Your task to perform on an android device: When is my next meeting? Image 0: 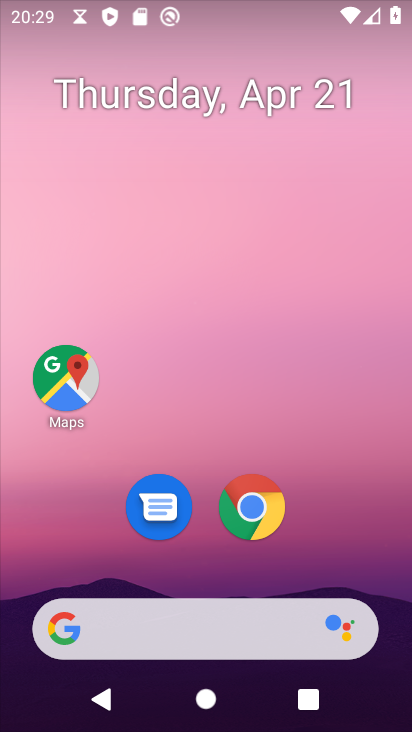
Step 0: drag from (181, 501) to (294, 32)
Your task to perform on an android device: When is my next meeting? Image 1: 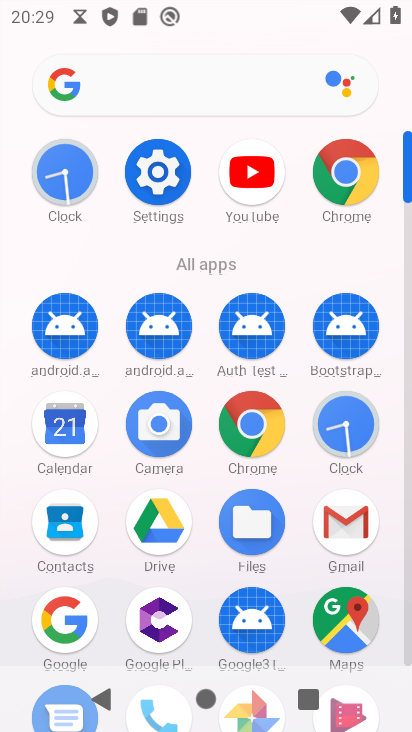
Step 1: click (67, 429)
Your task to perform on an android device: When is my next meeting? Image 2: 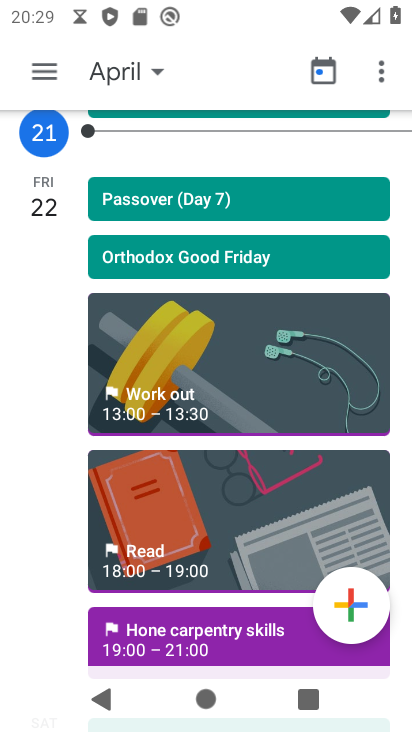
Step 2: task complete